Your task to perform on an android device: Install the Yahoo app Image 0: 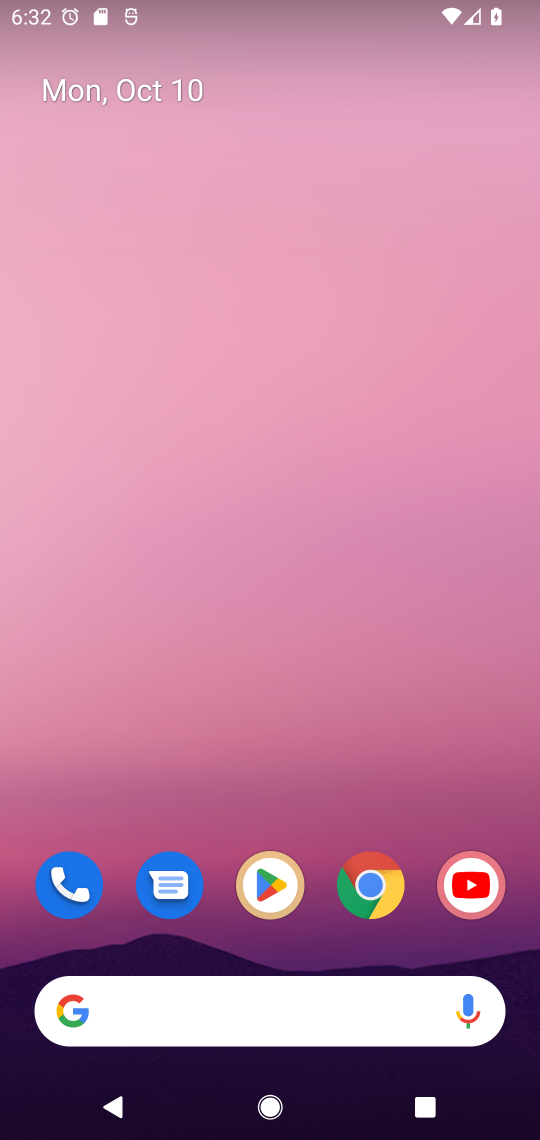
Step 0: click (260, 892)
Your task to perform on an android device: Install the Yahoo app Image 1: 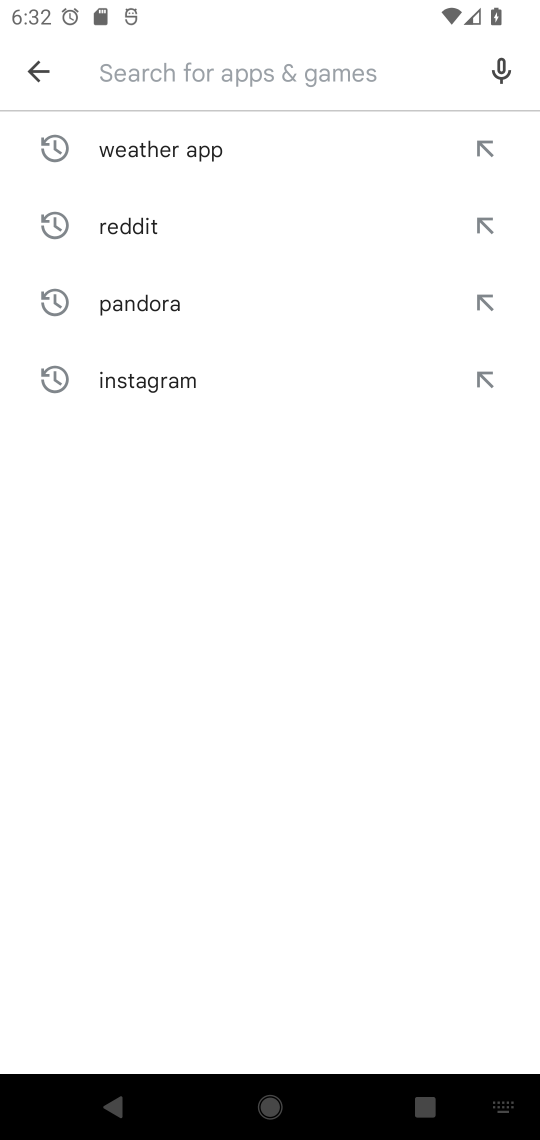
Step 1: click (262, 73)
Your task to perform on an android device: Install the Yahoo app Image 2: 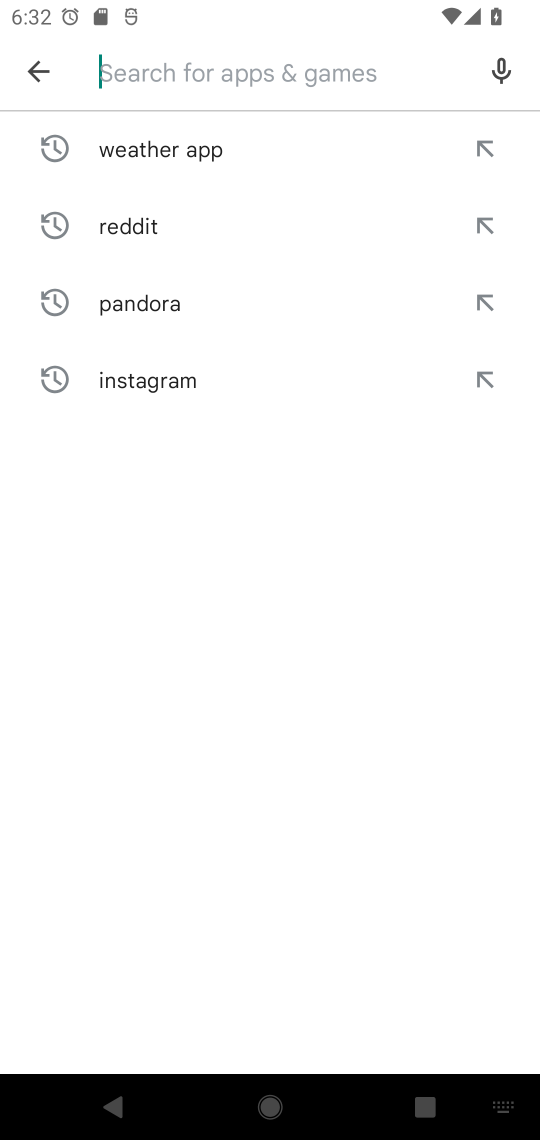
Step 2: type "yahoo"
Your task to perform on an android device: Install the Yahoo app Image 3: 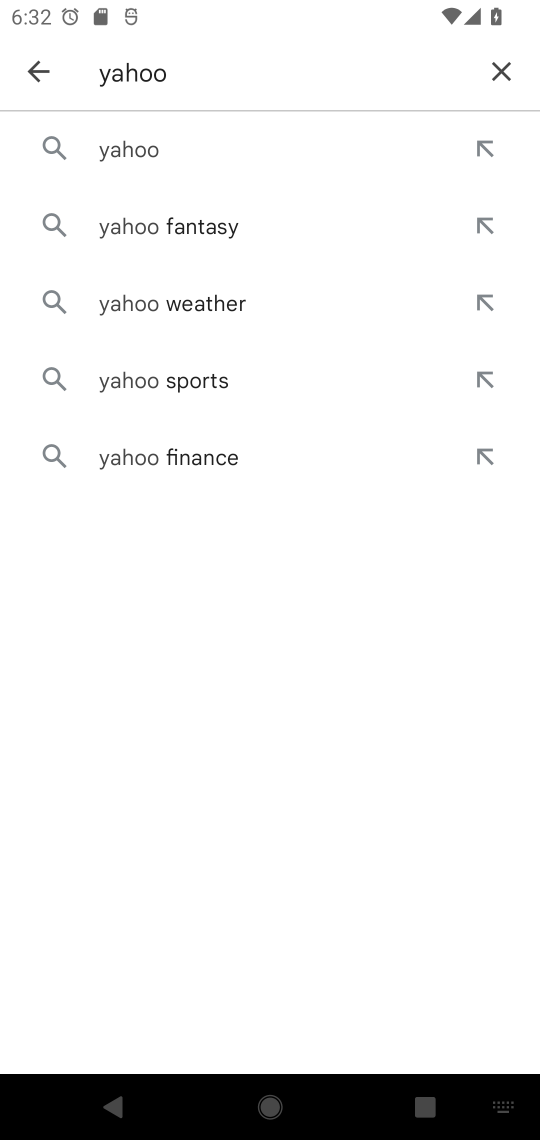
Step 3: click (153, 140)
Your task to perform on an android device: Install the Yahoo app Image 4: 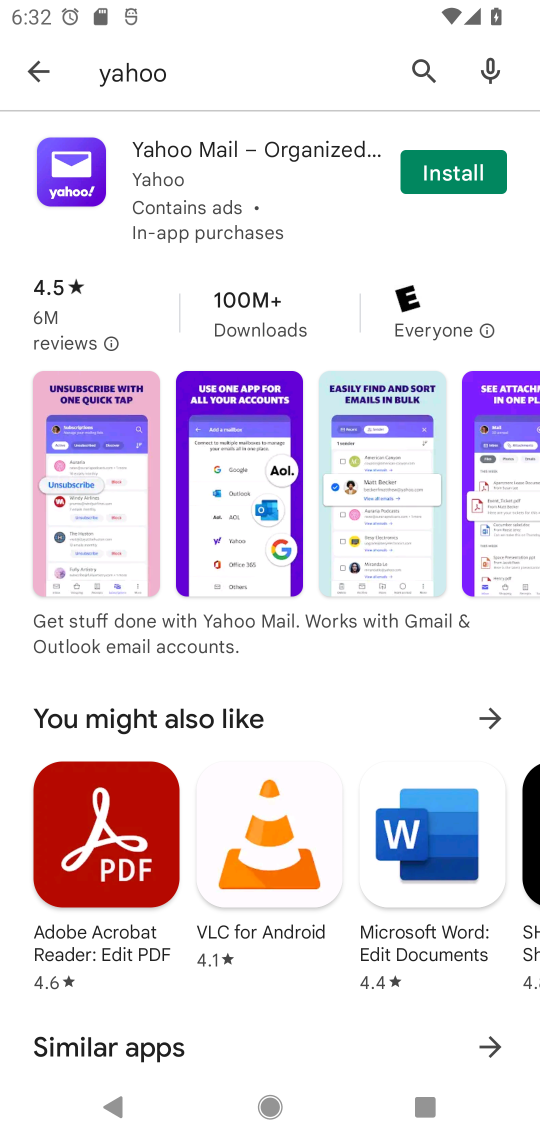
Step 4: click (463, 166)
Your task to perform on an android device: Install the Yahoo app Image 5: 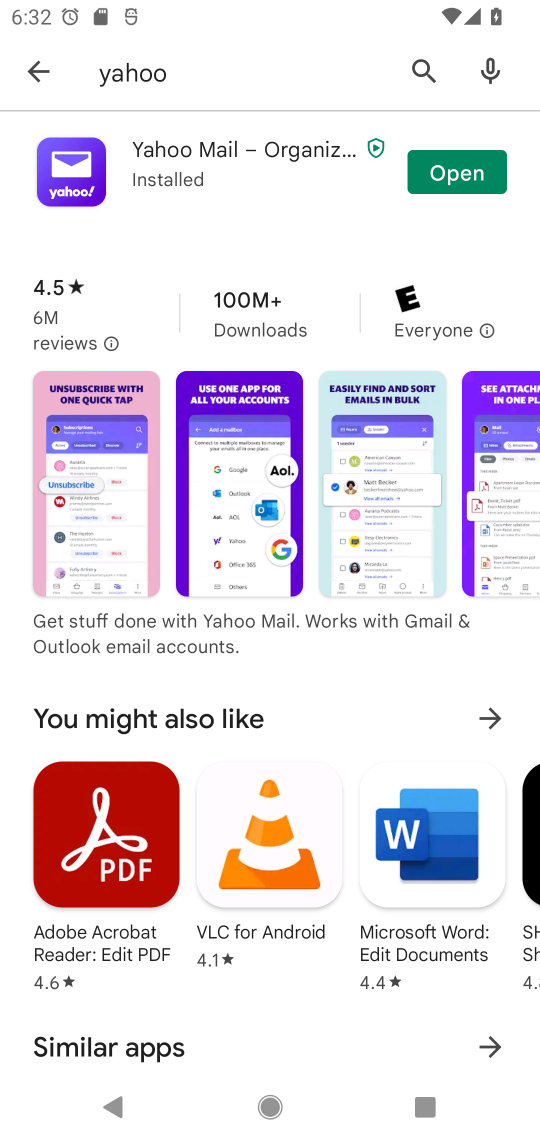
Step 5: task complete